Your task to perform on an android device: Search for hotels in NYC Image 0: 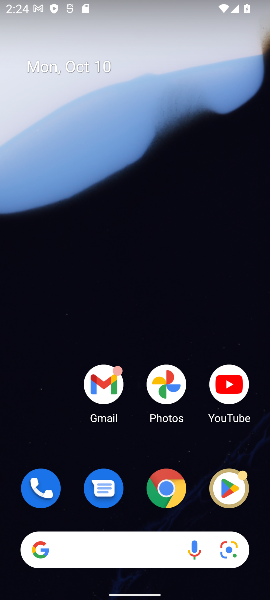
Step 0: click (157, 558)
Your task to perform on an android device: Search for hotels in NYC Image 1: 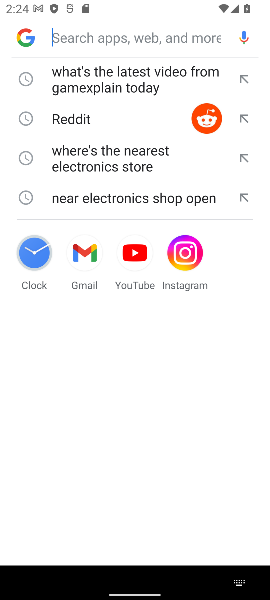
Step 1: click (104, 34)
Your task to perform on an android device: Search for hotels in NYC Image 2: 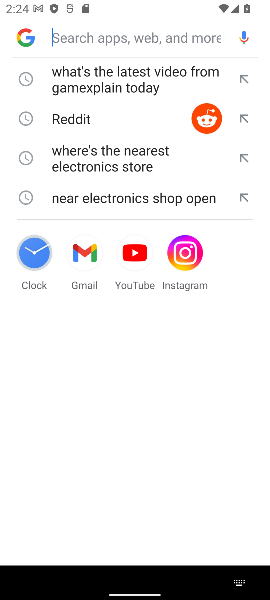
Step 2: type "Search for hotels in NYC"
Your task to perform on an android device: Search for hotels in NYC Image 3: 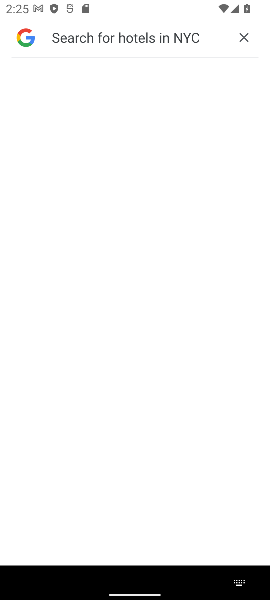
Step 3: click (242, 36)
Your task to perform on an android device: Search for hotels in NYC Image 4: 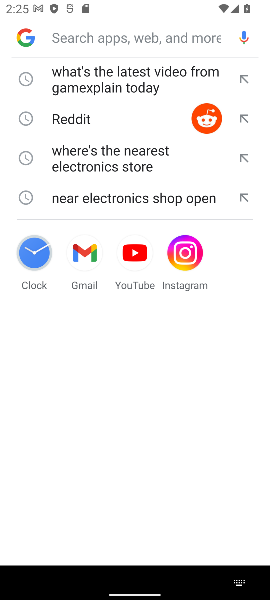
Step 4: click (62, 36)
Your task to perform on an android device: Search for hotels in NYC Image 5: 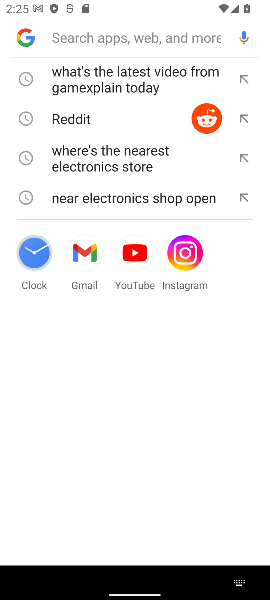
Step 5: type "hotels in NYC"
Your task to perform on an android device: Search for hotels in NYC Image 6: 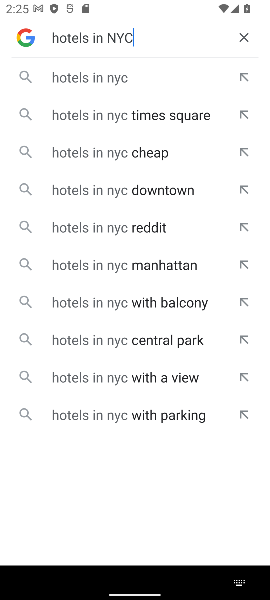
Step 6: click (141, 81)
Your task to perform on an android device: Search for hotels in NYC Image 7: 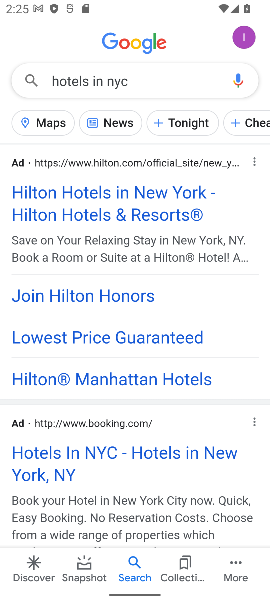
Step 7: task complete